Your task to perform on an android device: Search for the best coffee tables on Crate & Barrel Image 0: 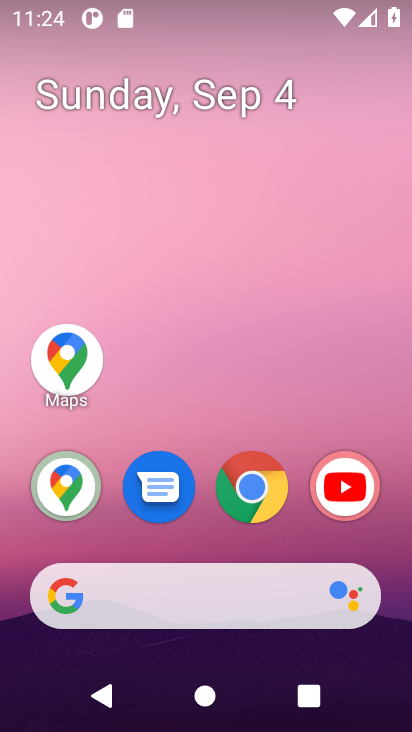
Step 0: click (52, 482)
Your task to perform on an android device: Search for the best coffee tables on Crate & Barrel Image 1: 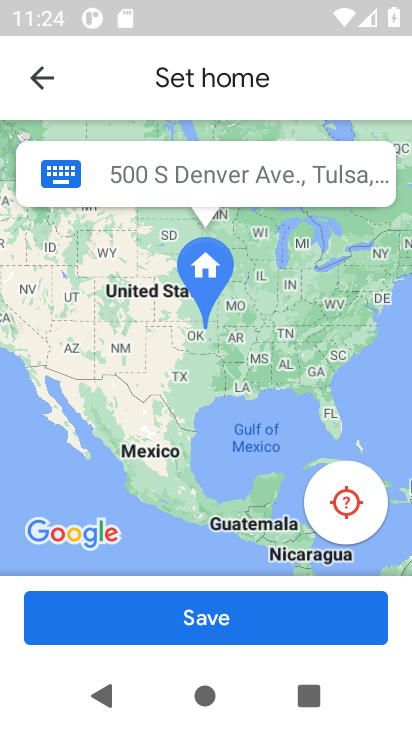
Step 1: task complete